Your task to perform on an android device: turn pop-ups on in chrome Image 0: 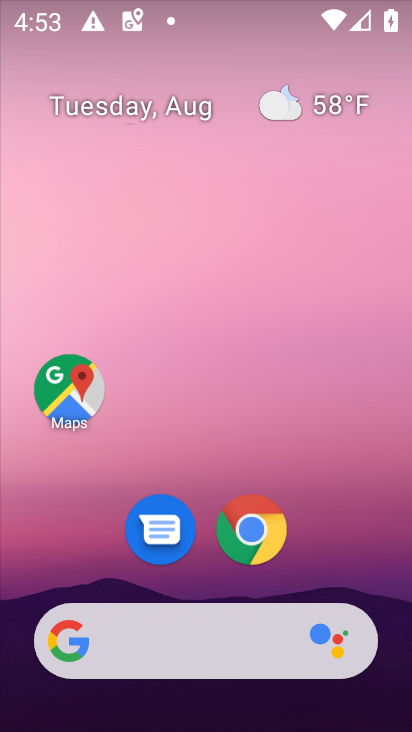
Step 0: click (264, 539)
Your task to perform on an android device: turn pop-ups on in chrome Image 1: 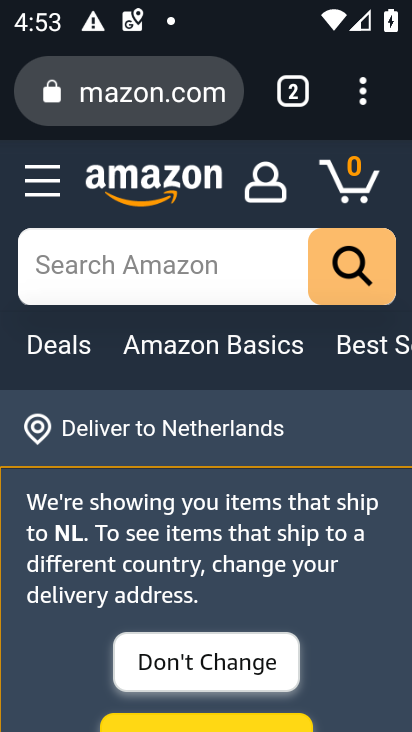
Step 1: click (369, 97)
Your task to perform on an android device: turn pop-ups on in chrome Image 2: 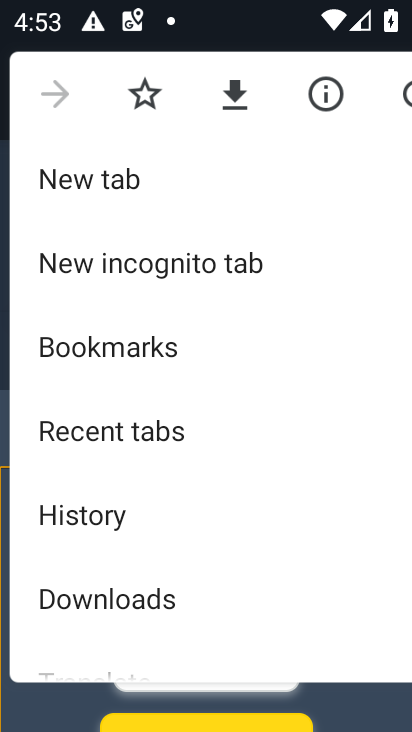
Step 2: drag from (171, 563) to (198, 165)
Your task to perform on an android device: turn pop-ups on in chrome Image 3: 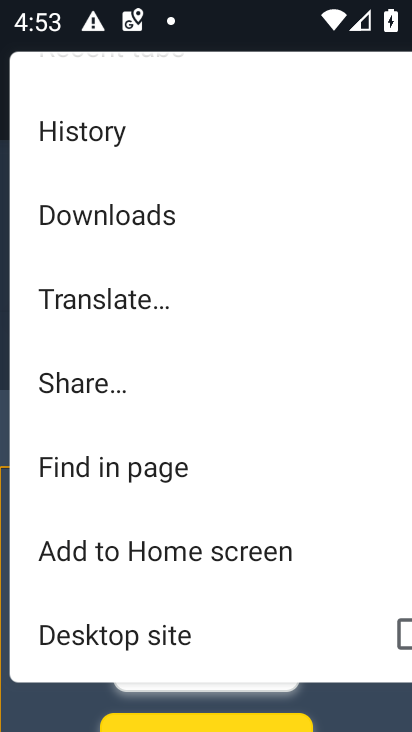
Step 3: drag from (169, 601) to (221, 166)
Your task to perform on an android device: turn pop-ups on in chrome Image 4: 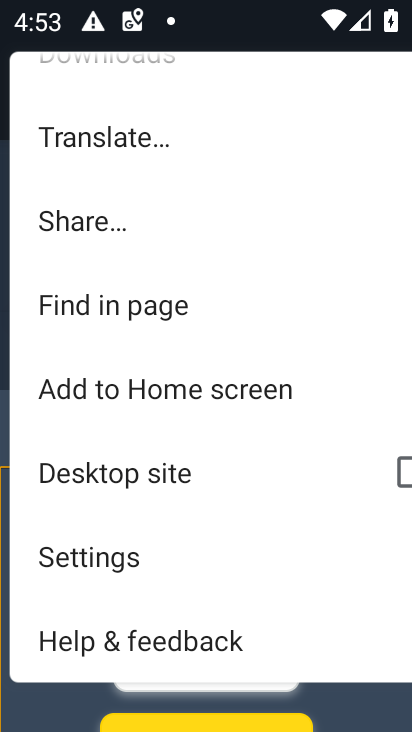
Step 4: click (119, 554)
Your task to perform on an android device: turn pop-ups on in chrome Image 5: 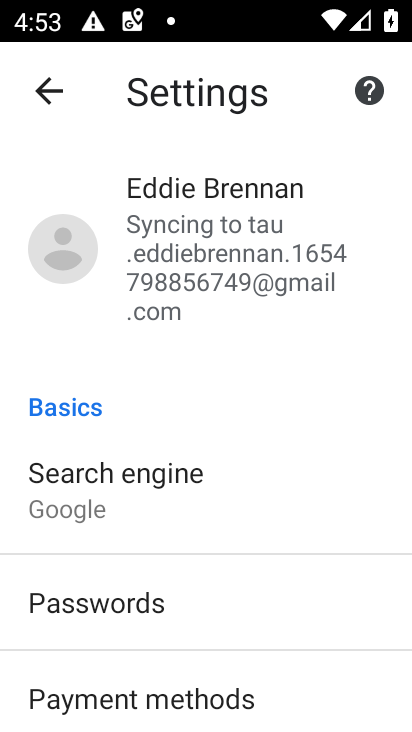
Step 5: drag from (118, 610) to (151, 236)
Your task to perform on an android device: turn pop-ups on in chrome Image 6: 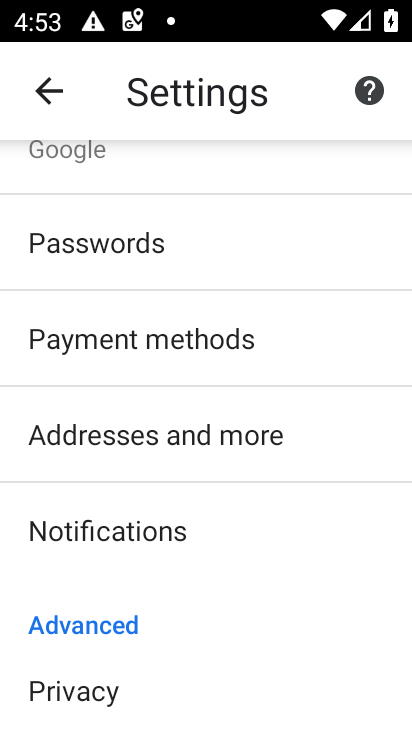
Step 6: drag from (294, 269) to (301, 232)
Your task to perform on an android device: turn pop-ups on in chrome Image 7: 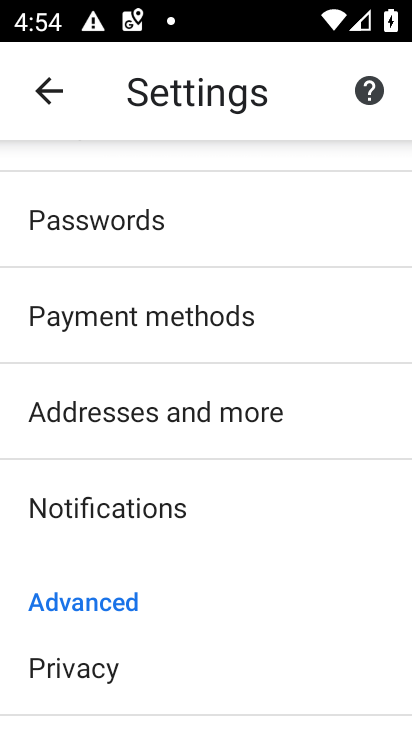
Step 7: drag from (176, 594) to (235, 184)
Your task to perform on an android device: turn pop-ups on in chrome Image 8: 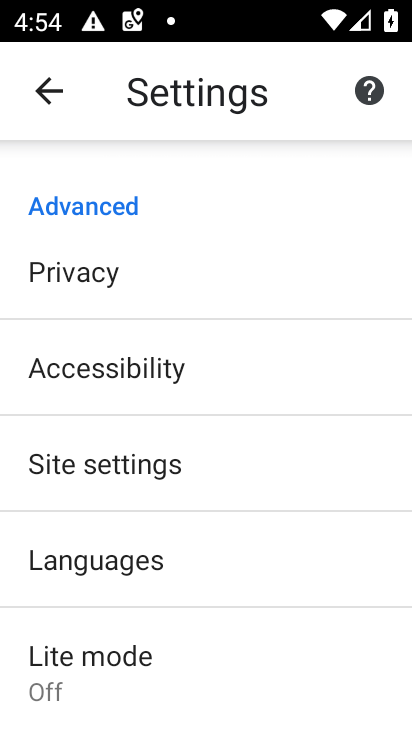
Step 8: click (188, 475)
Your task to perform on an android device: turn pop-ups on in chrome Image 9: 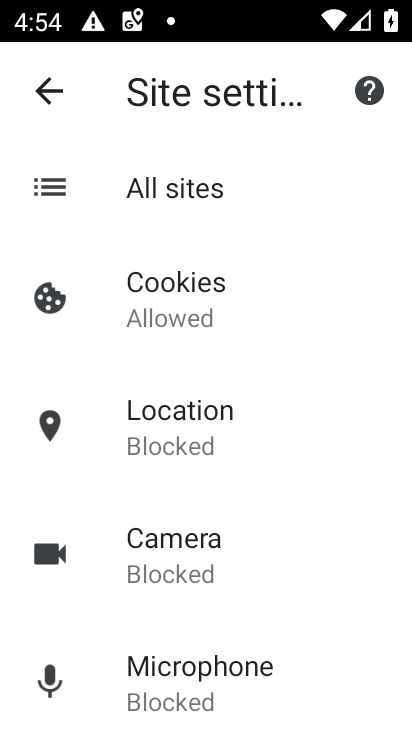
Step 9: drag from (229, 657) to (253, 236)
Your task to perform on an android device: turn pop-ups on in chrome Image 10: 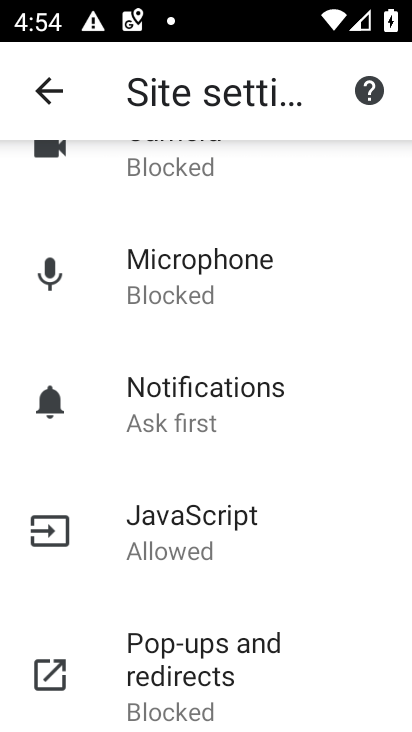
Step 10: click (222, 632)
Your task to perform on an android device: turn pop-ups on in chrome Image 11: 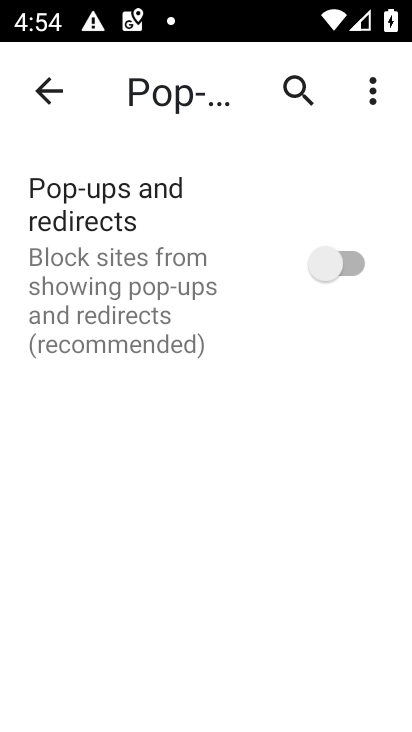
Step 11: click (346, 259)
Your task to perform on an android device: turn pop-ups on in chrome Image 12: 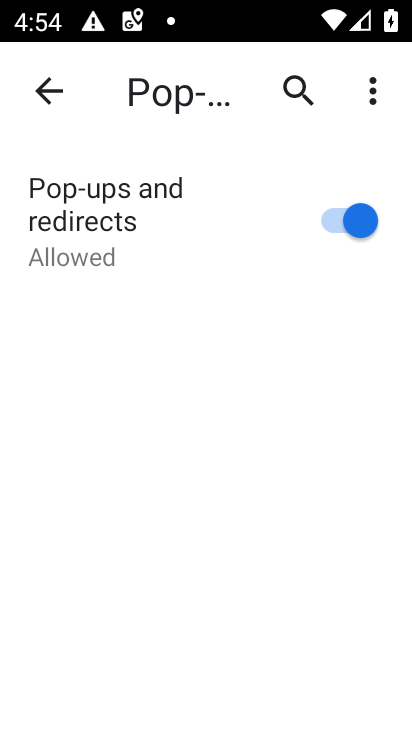
Step 12: task complete